Your task to perform on an android device: toggle airplane mode Image 0: 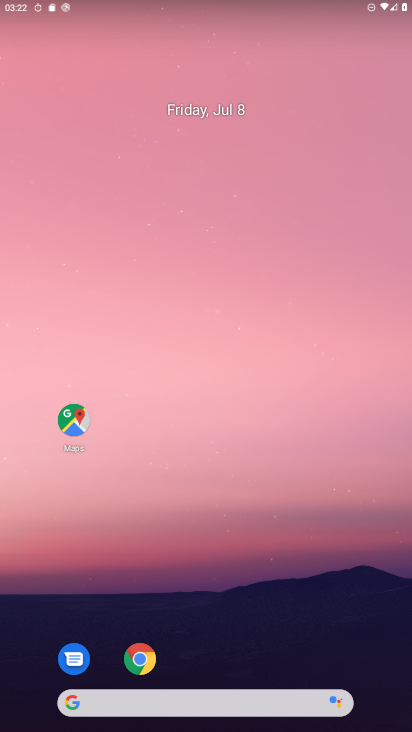
Step 0: drag from (239, 641) to (211, 3)
Your task to perform on an android device: toggle airplane mode Image 1: 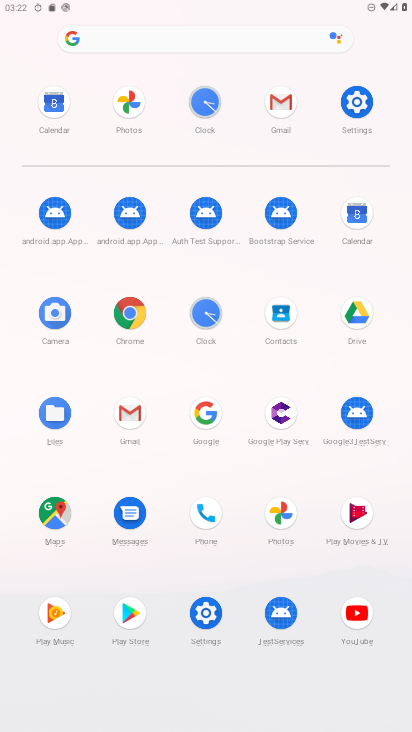
Step 1: click (352, 107)
Your task to perform on an android device: toggle airplane mode Image 2: 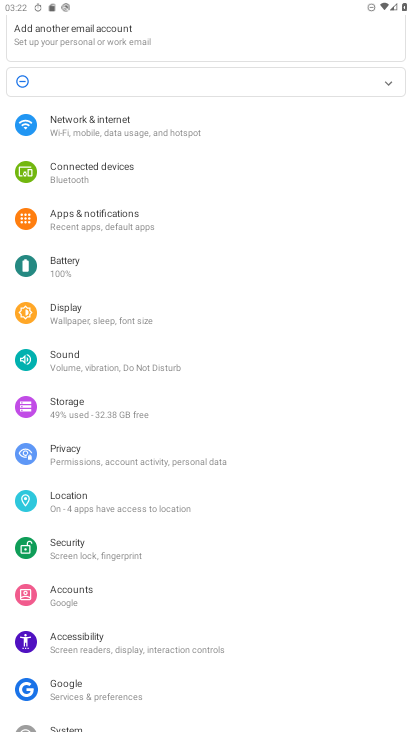
Step 2: click (76, 133)
Your task to perform on an android device: toggle airplane mode Image 3: 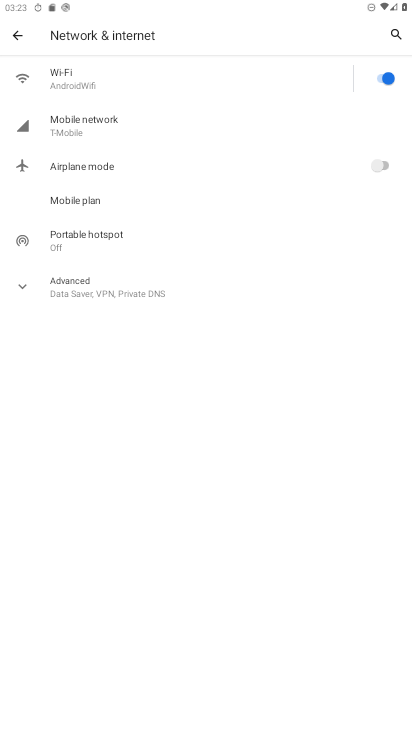
Step 3: click (382, 164)
Your task to perform on an android device: toggle airplane mode Image 4: 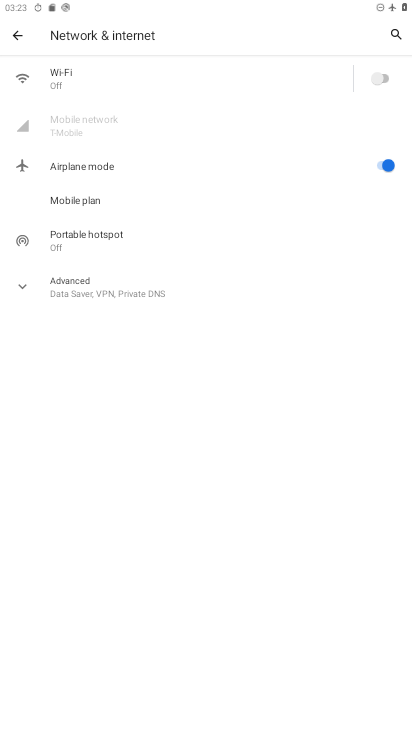
Step 4: task complete